Your task to perform on an android device: Open the calendar and show me this week's events? Image 0: 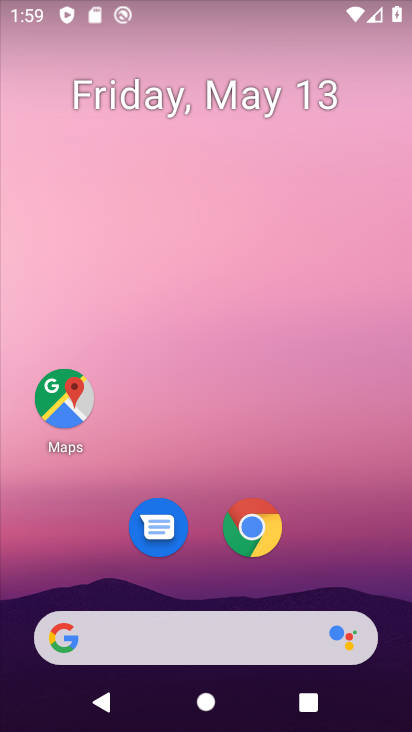
Step 0: drag from (320, 525) to (330, 123)
Your task to perform on an android device: Open the calendar and show me this week's events? Image 1: 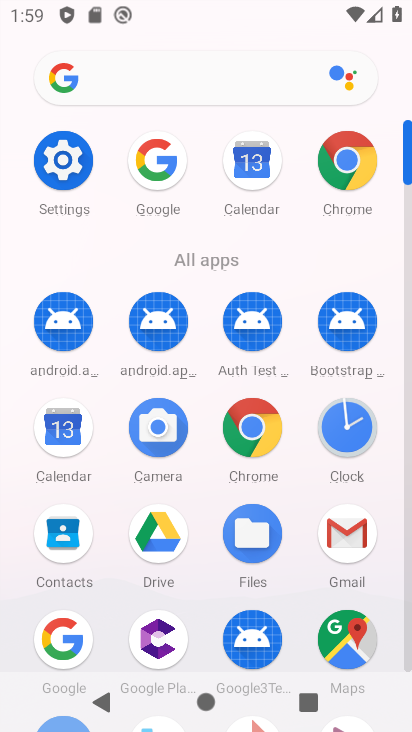
Step 1: click (80, 422)
Your task to perform on an android device: Open the calendar and show me this week's events? Image 2: 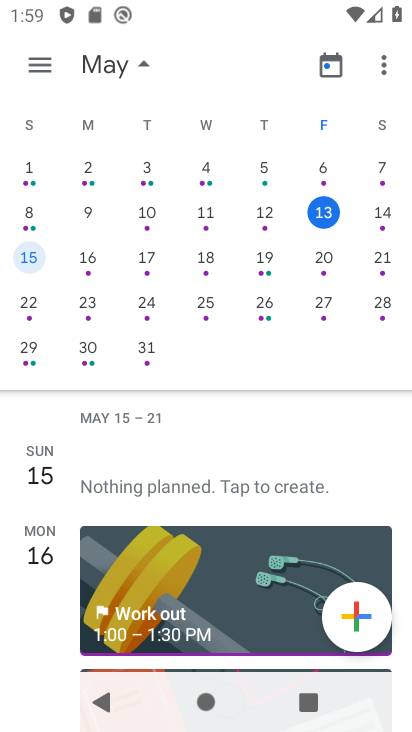
Step 2: task complete